Your task to perform on an android device: Is it going to rain this weekend? Image 0: 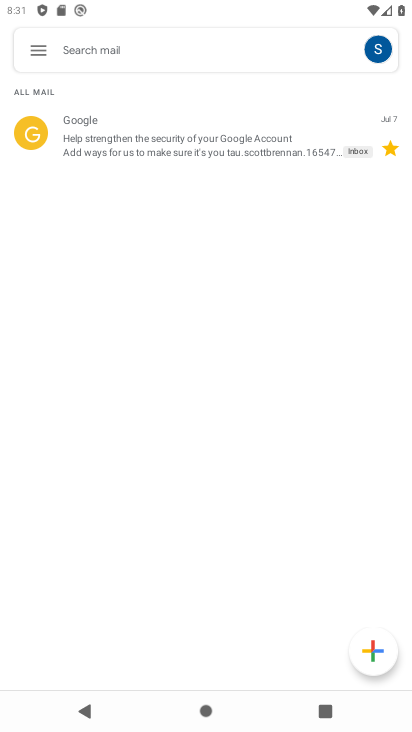
Step 0: press home button
Your task to perform on an android device: Is it going to rain this weekend? Image 1: 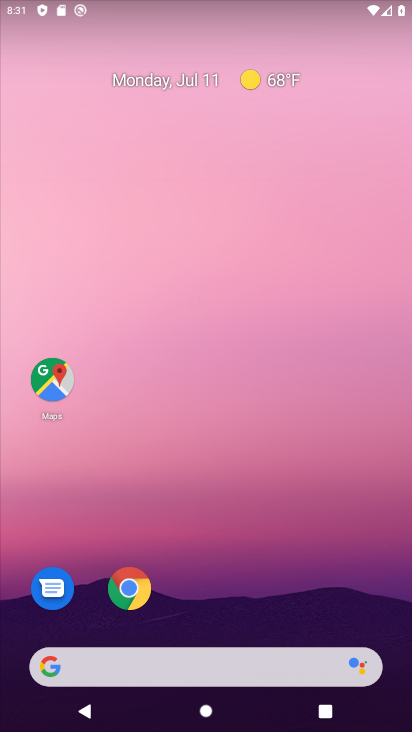
Step 1: drag from (198, 626) to (208, 141)
Your task to perform on an android device: Is it going to rain this weekend? Image 2: 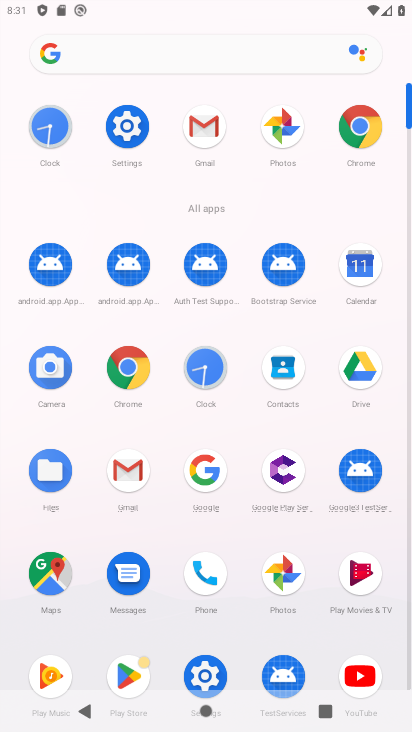
Step 2: click (212, 458)
Your task to perform on an android device: Is it going to rain this weekend? Image 3: 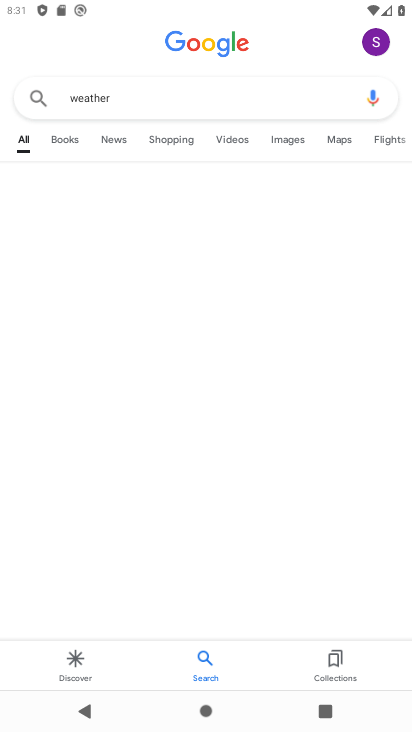
Step 3: task complete